Your task to perform on an android device: change the clock display to digital Image 0: 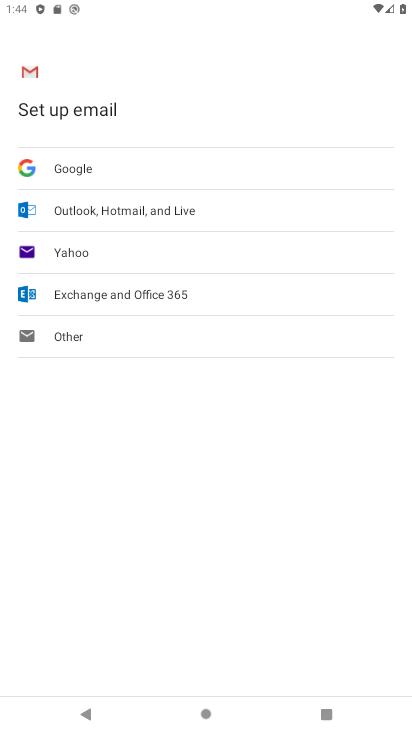
Step 0: press home button
Your task to perform on an android device: change the clock display to digital Image 1: 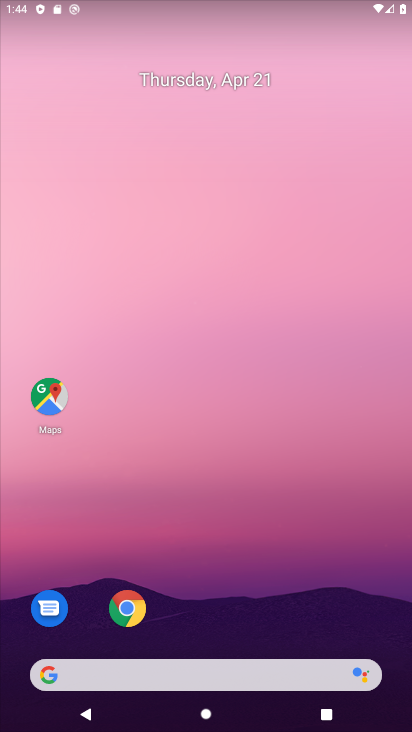
Step 1: drag from (221, 477) to (255, 43)
Your task to perform on an android device: change the clock display to digital Image 2: 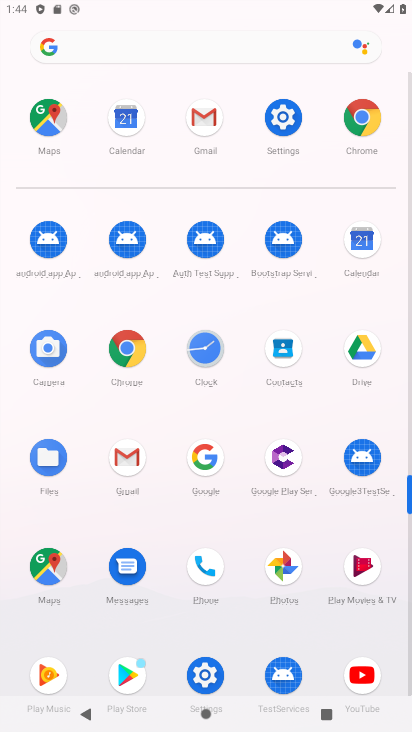
Step 2: click (193, 346)
Your task to perform on an android device: change the clock display to digital Image 3: 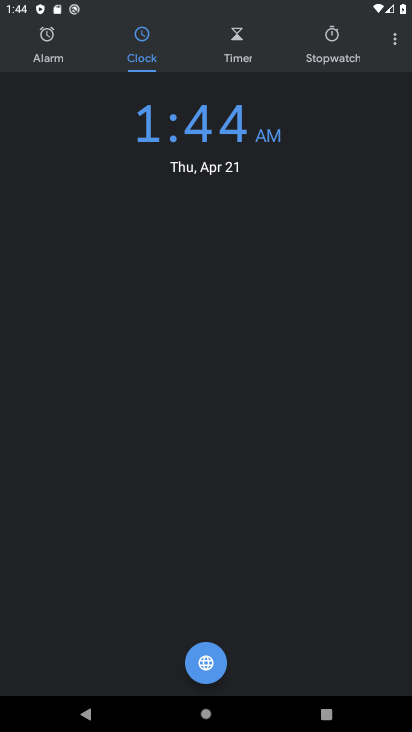
Step 3: click (385, 30)
Your task to perform on an android device: change the clock display to digital Image 4: 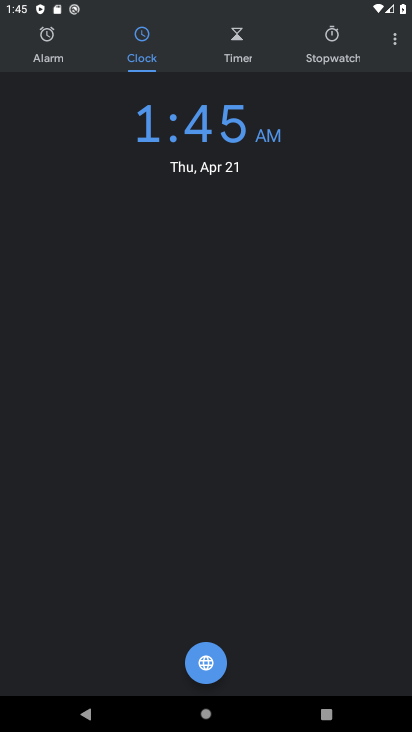
Step 4: click (381, 35)
Your task to perform on an android device: change the clock display to digital Image 5: 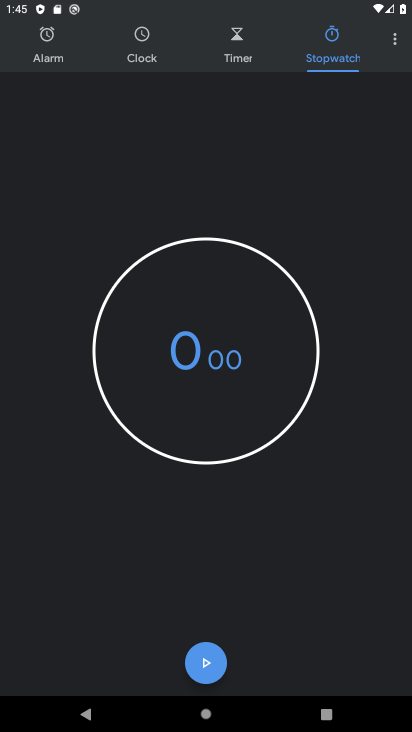
Step 5: click (383, 49)
Your task to perform on an android device: change the clock display to digital Image 6: 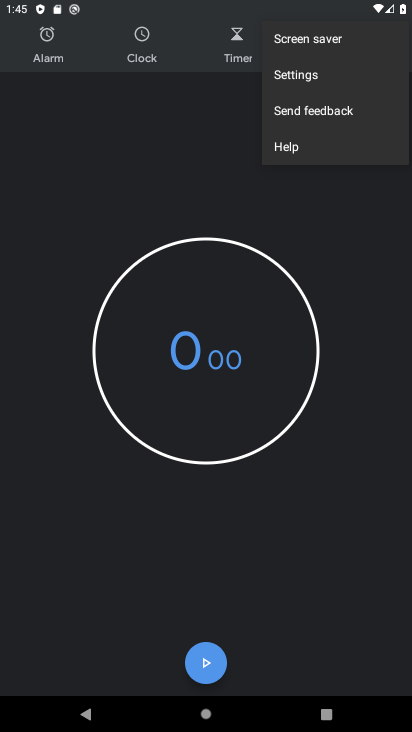
Step 6: click (317, 83)
Your task to perform on an android device: change the clock display to digital Image 7: 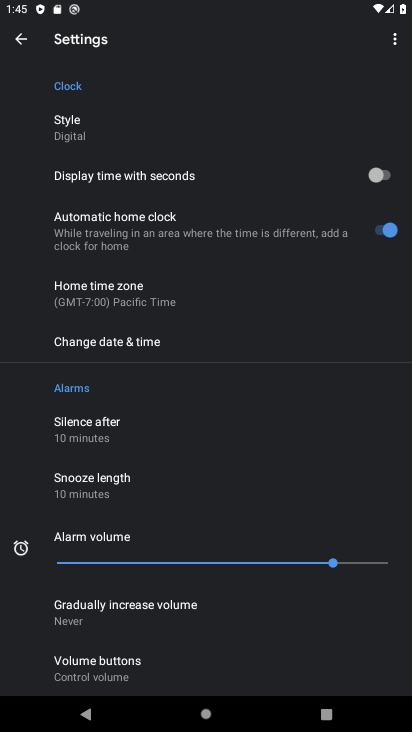
Step 7: click (71, 136)
Your task to perform on an android device: change the clock display to digital Image 8: 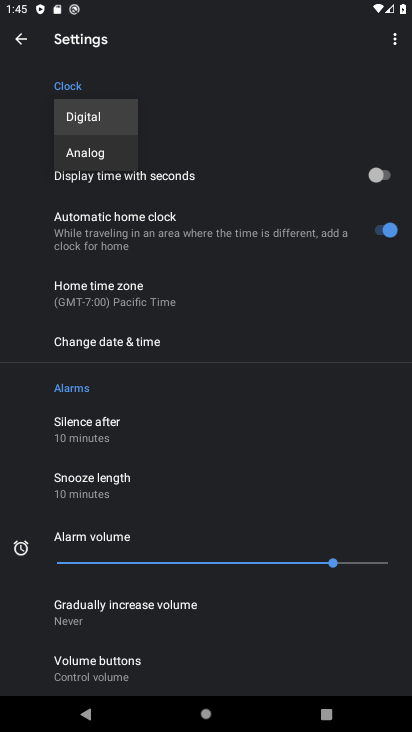
Step 8: click (209, 106)
Your task to perform on an android device: change the clock display to digital Image 9: 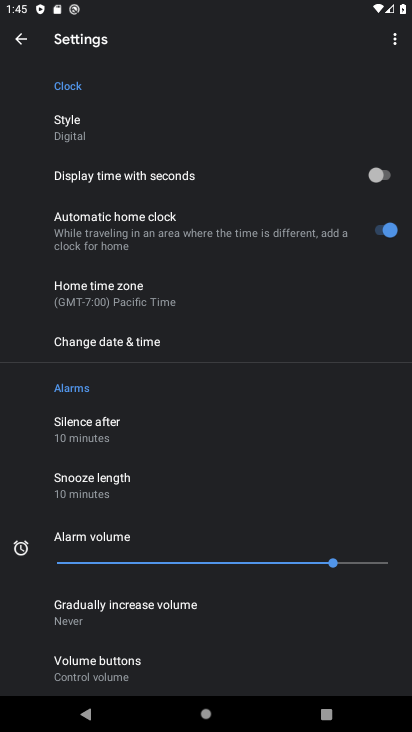
Step 9: task complete